Your task to perform on an android device: Go to Reddit.com Image 0: 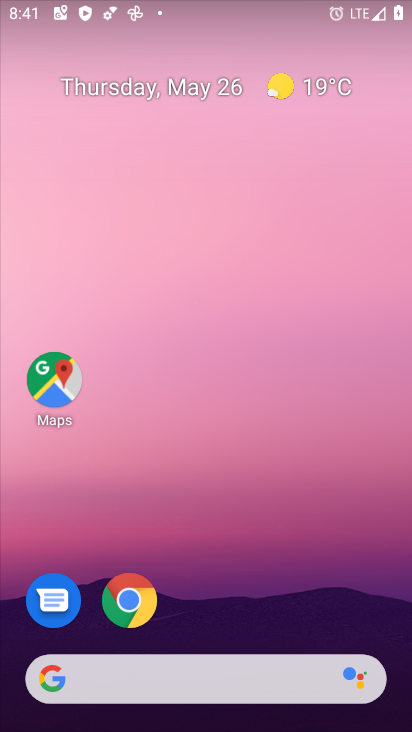
Step 0: press home button
Your task to perform on an android device: Go to Reddit.com Image 1: 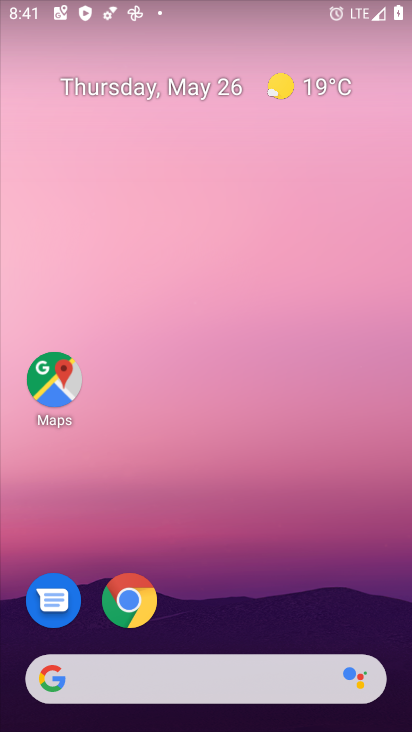
Step 1: click (48, 685)
Your task to perform on an android device: Go to Reddit.com Image 2: 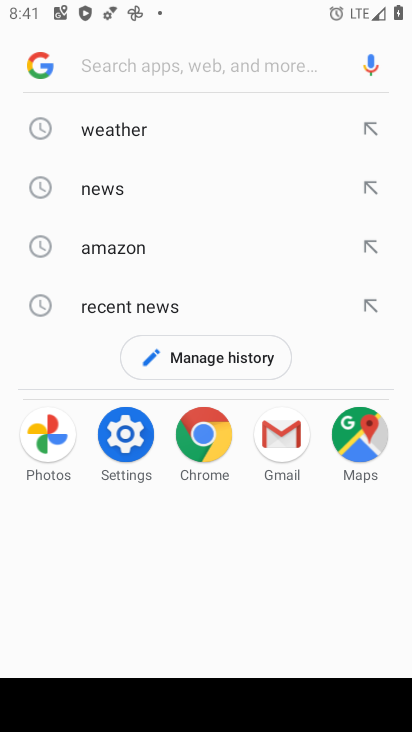
Step 2: type "Reddit.com"
Your task to perform on an android device: Go to Reddit.com Image 3: 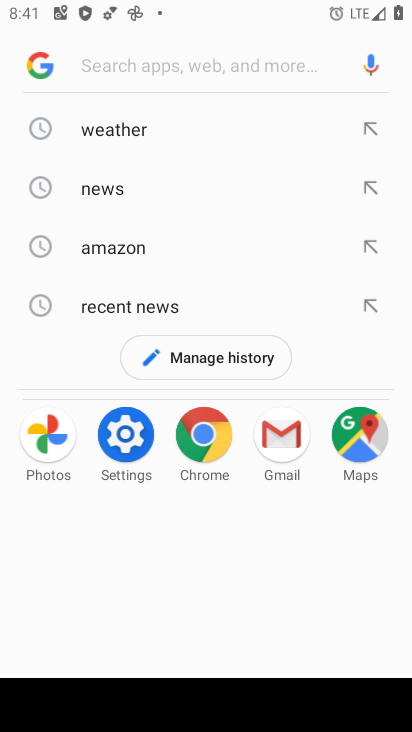
Step 3: click (162, 61)
Your task to perform on an android device: Go to Reddit.com Image 4: 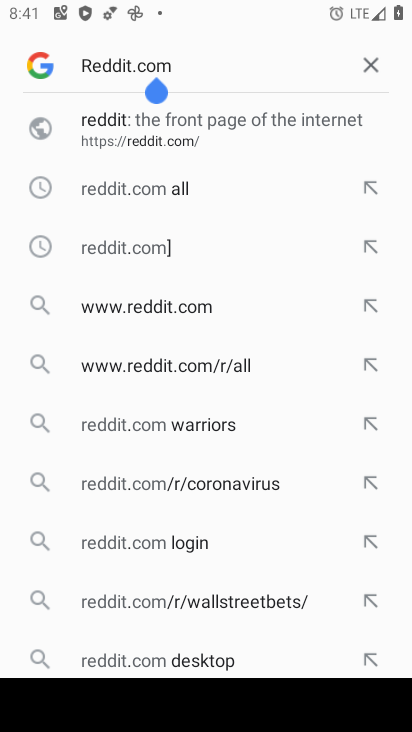
Step 4: click (132, 123)
Your task to perform on an android device: Go to Reddit.com Image 5: 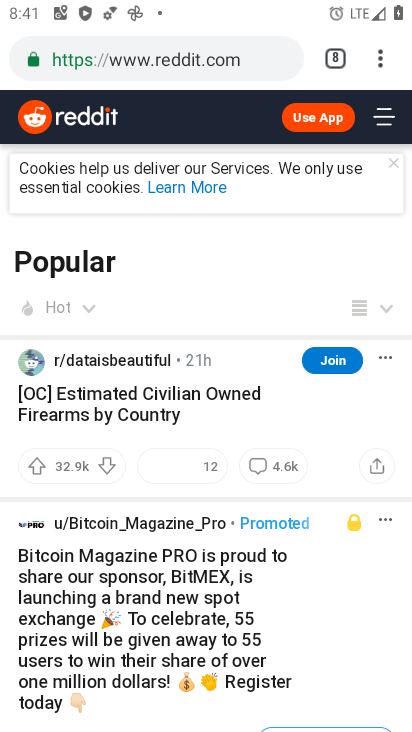
Step 5: task complete